Your task to perform on an android device: check google app version Image 0: 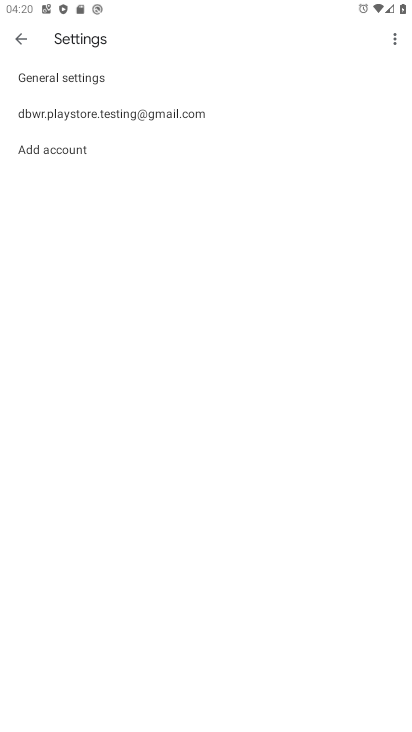
Step 0: press home button
Your task to perform on an android device: check google app version Image 1: 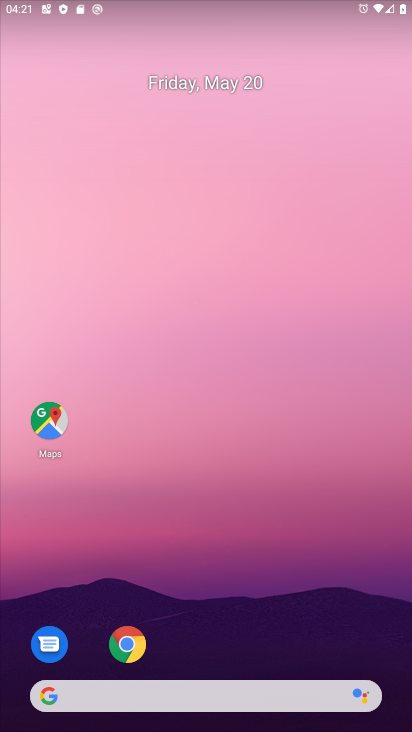
Step 1: click (288, 632)
Your task to perform on an android device: check google app version Image 2: 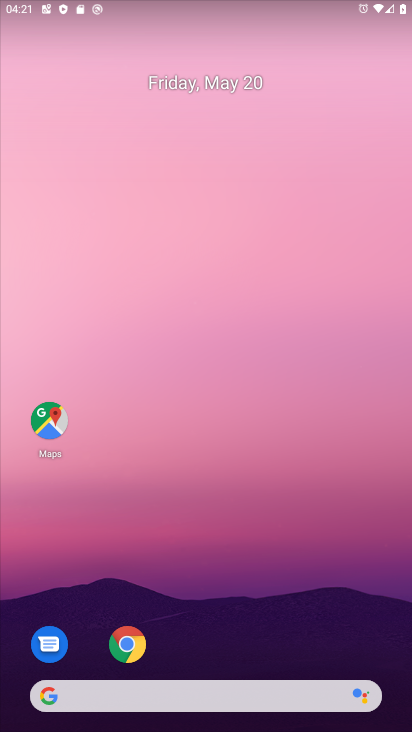
Step 2: click (137, 648)
Your task to perform on an android device: check google app version Image 3: 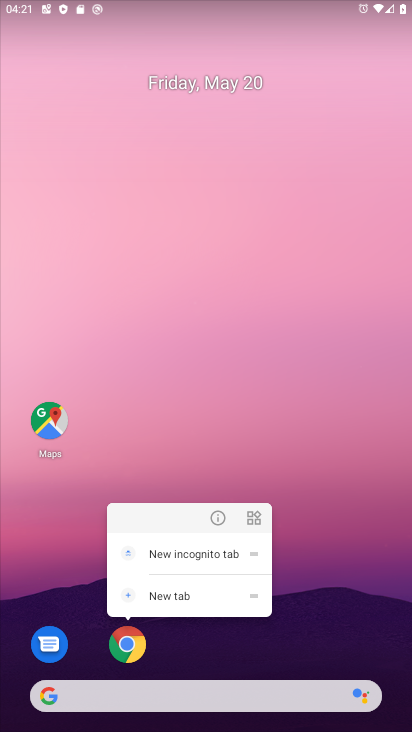
Step 3: click (212, 521)
Your task to perform on an android device: check google app version Image 4: 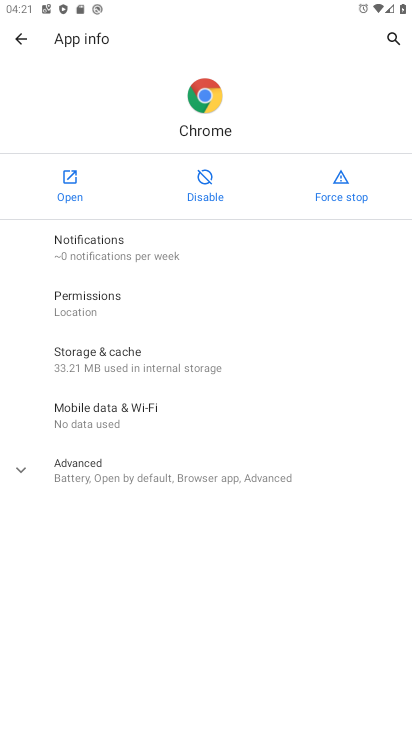
Step 4: click (212, 484)
Your task to perform on an android device: check google app version Image 5: 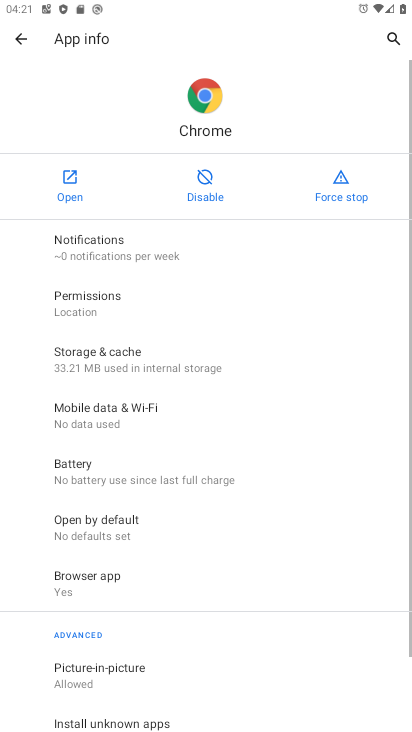
Step 5: task complete